Your task to perform on an android device: Open notification settings Image 0: 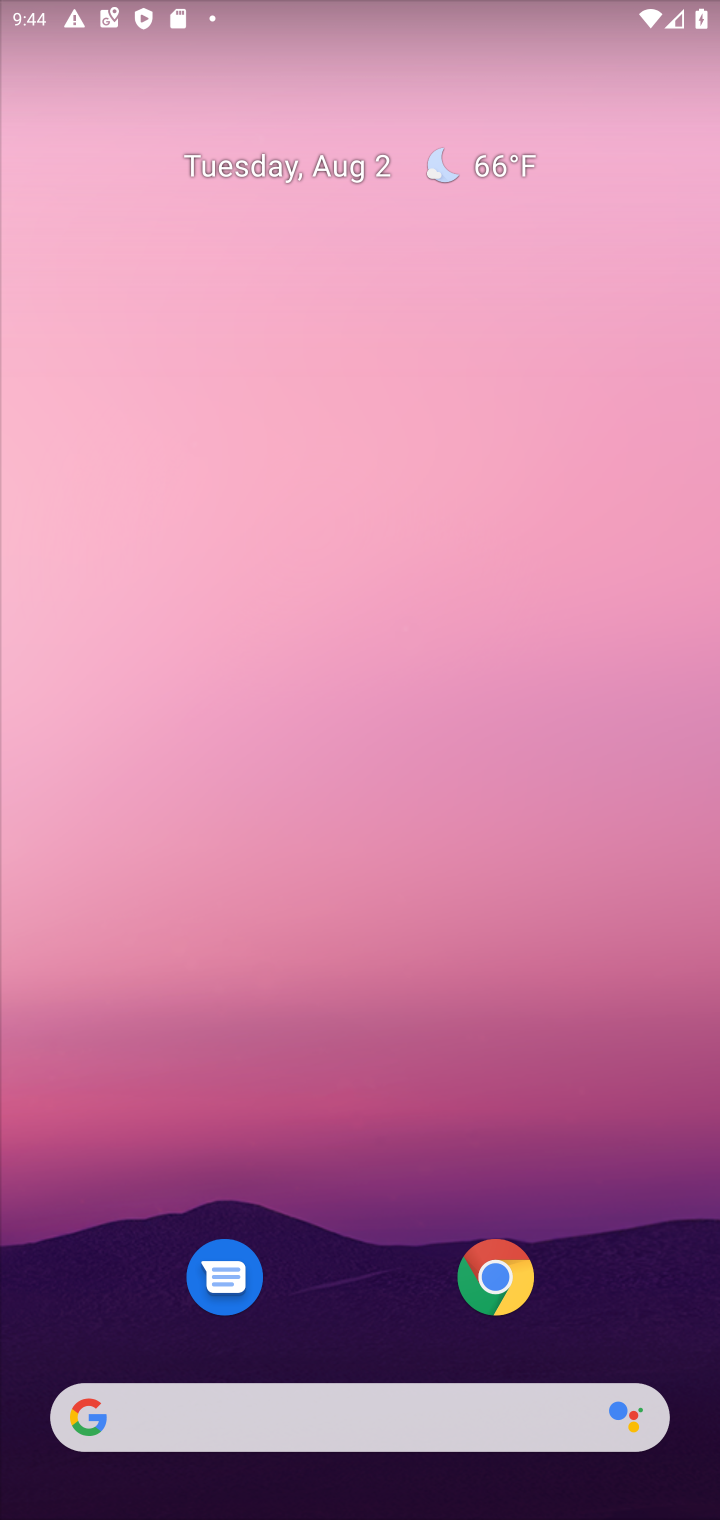
Step 0: drag from (310, 1054) to (265, 408)
Your task to perform on an android device: Open notification settings Image 1: 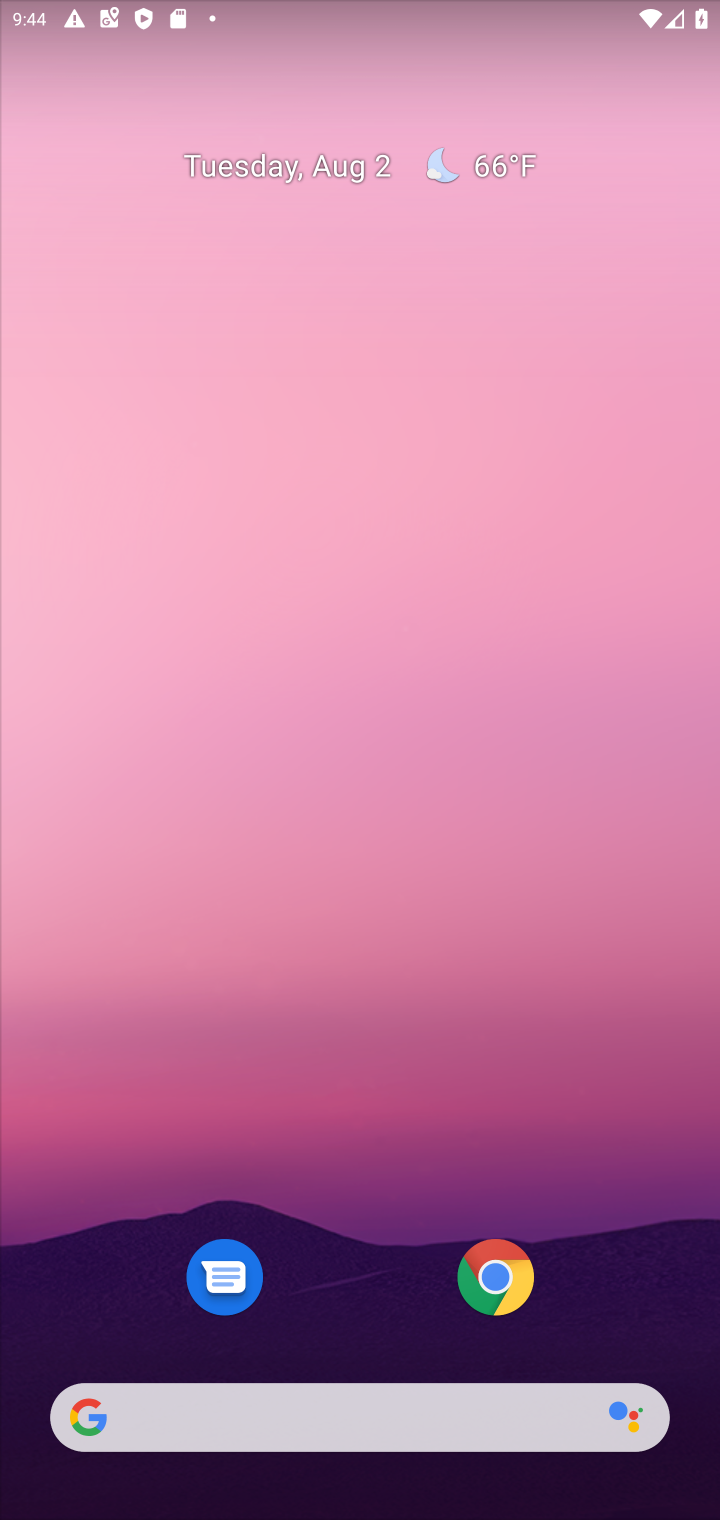
Step 1: drag from (346, 1130) to (350, 441)
Your task to perform on an android device: Open notification settings Image 2: 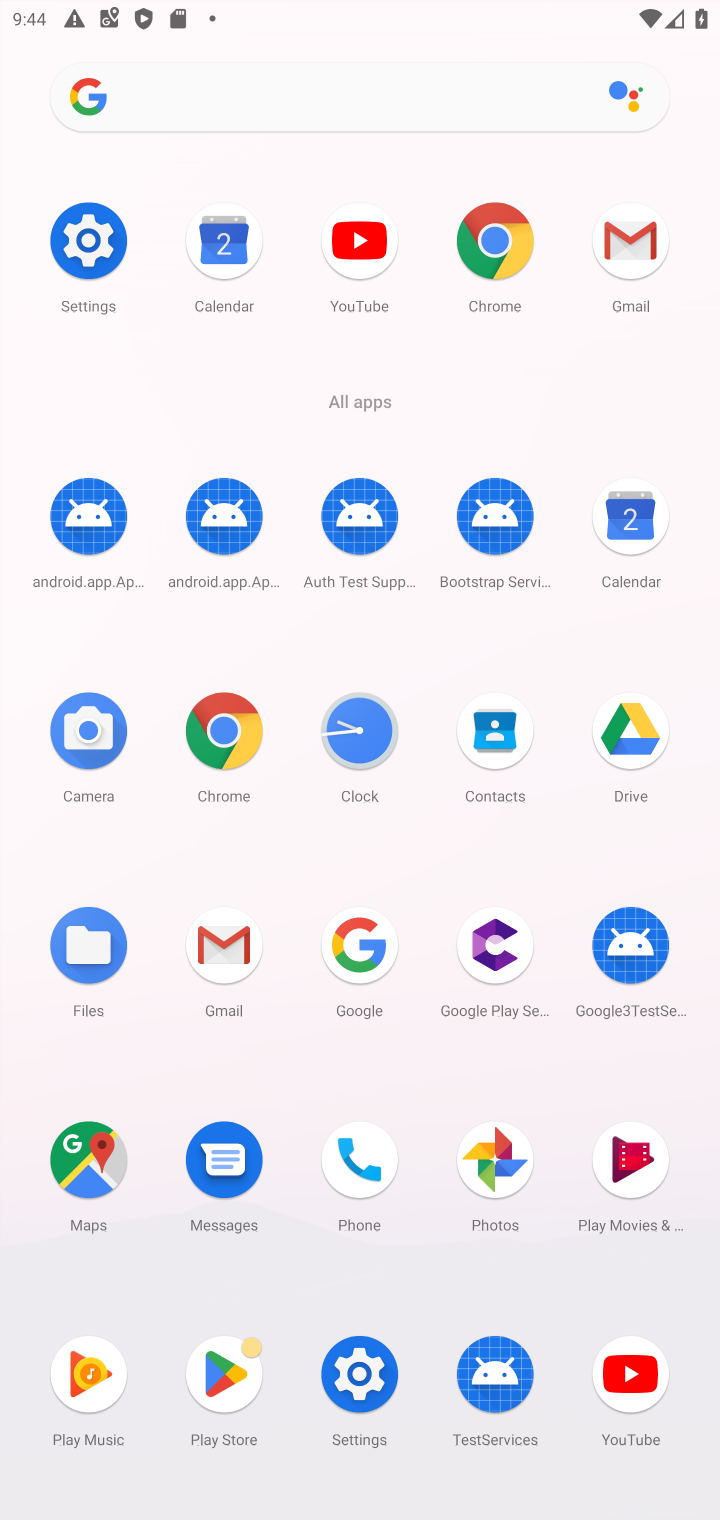
Step 2: click (345, 1377)
Your task to perform on an android device: Open notification settings Image 3: 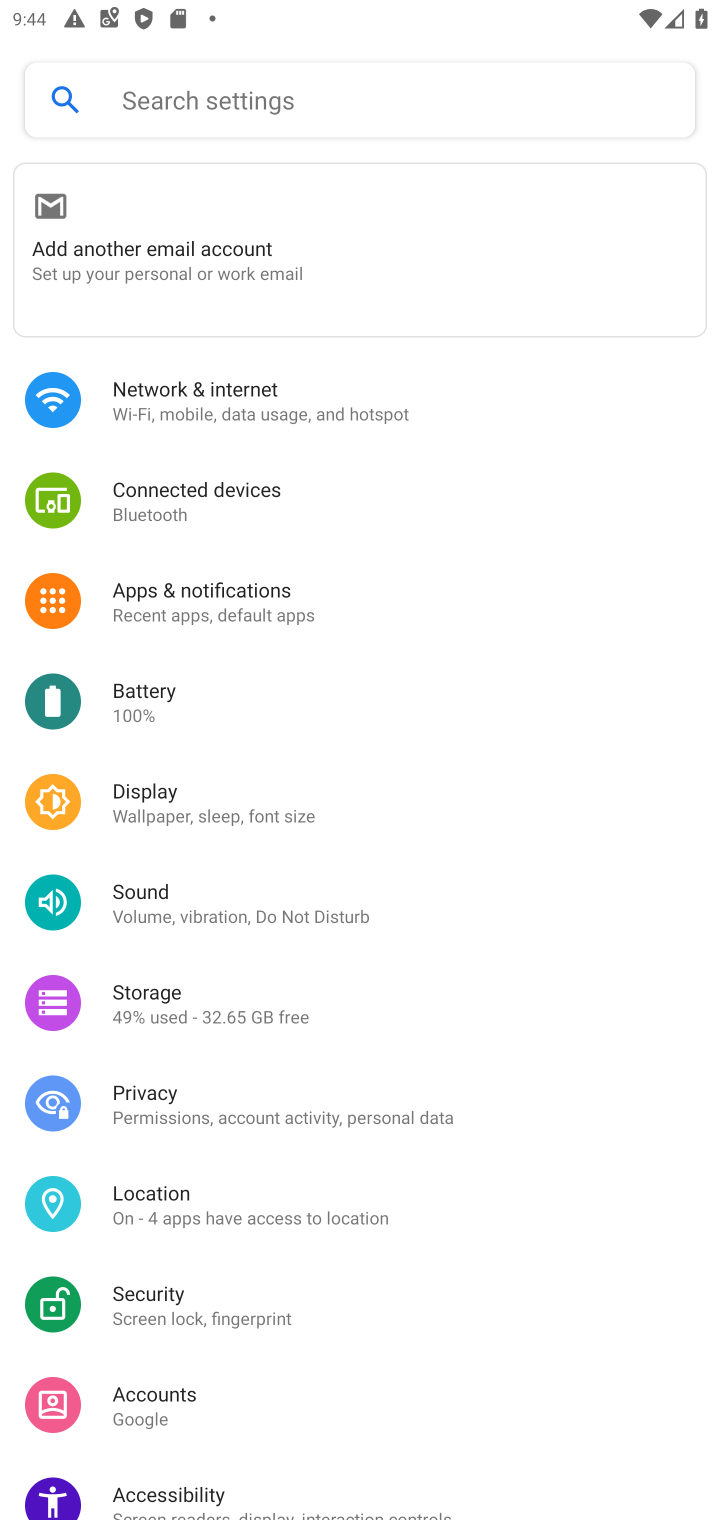
Step 3: click (136, 588)
Your task to perform on an android device: Open notification settings Image 4: 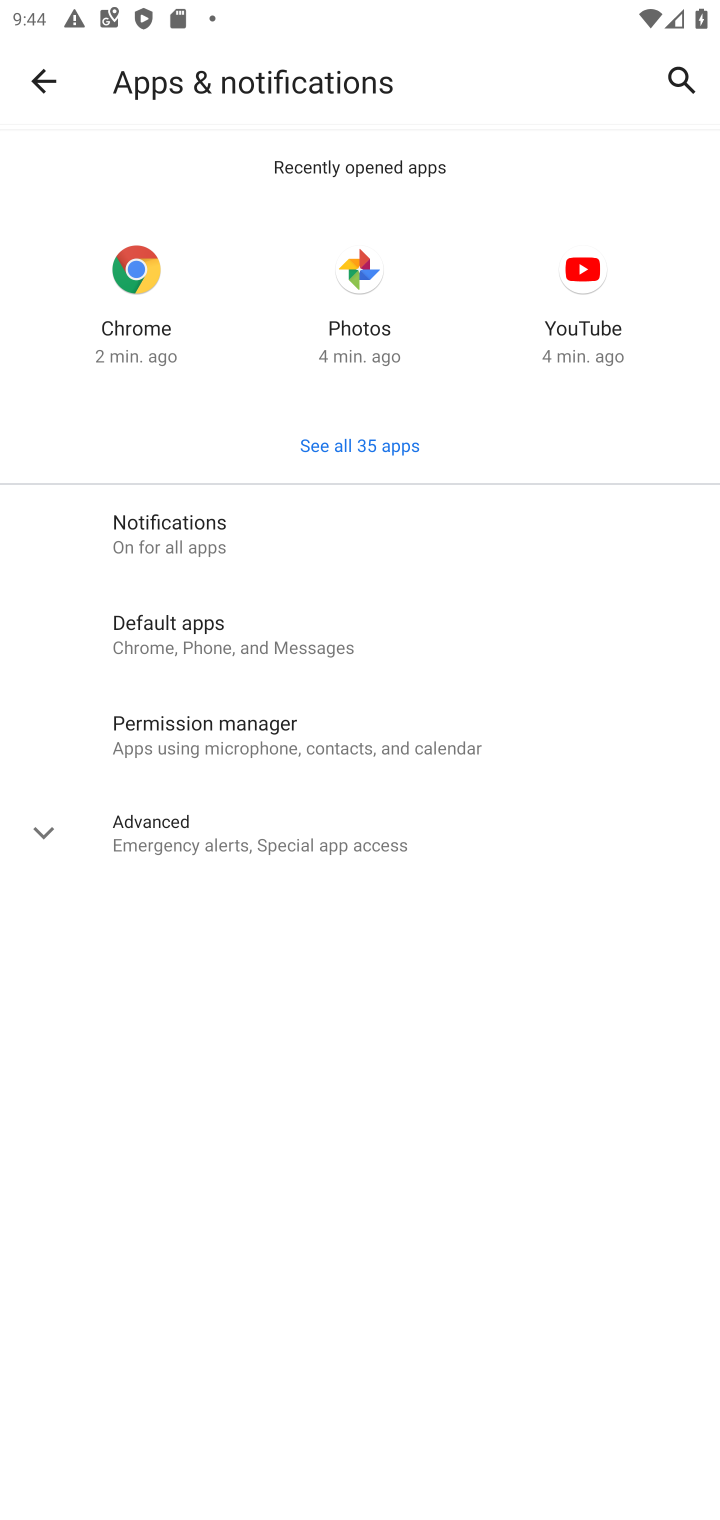
Step 4: task complete